Your task to perform on an android device: see tabs open on other devices in the chrome app Image 0: 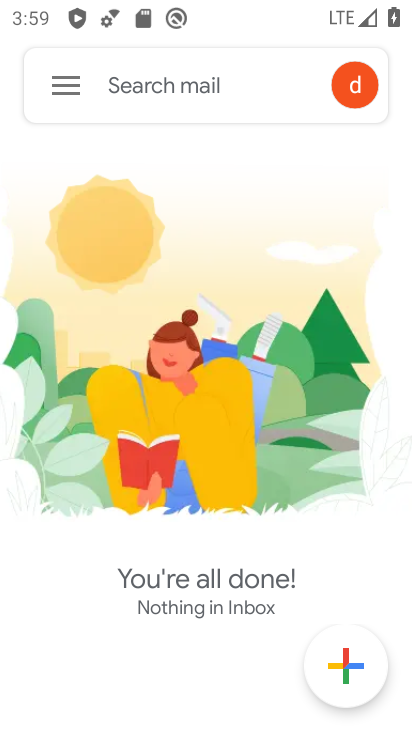
Step 0: press home button
Your task to perform on an android device: see tabs open on other devices in the chrome app Image 1: 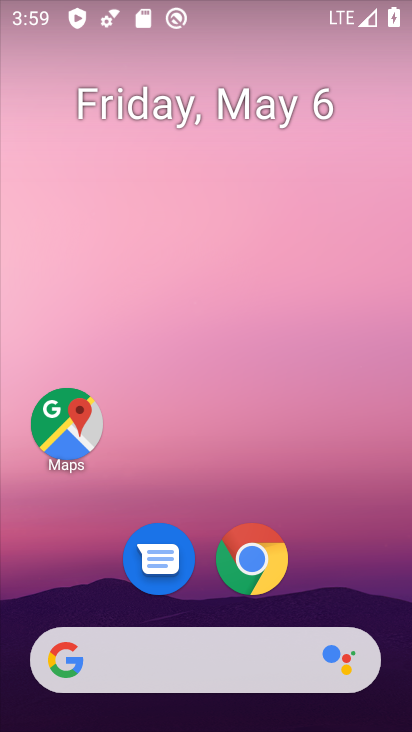
Step 1: click (237, 560)
Your task to perform on an android device: see tabs open on other devices in the chrome app Image 2: 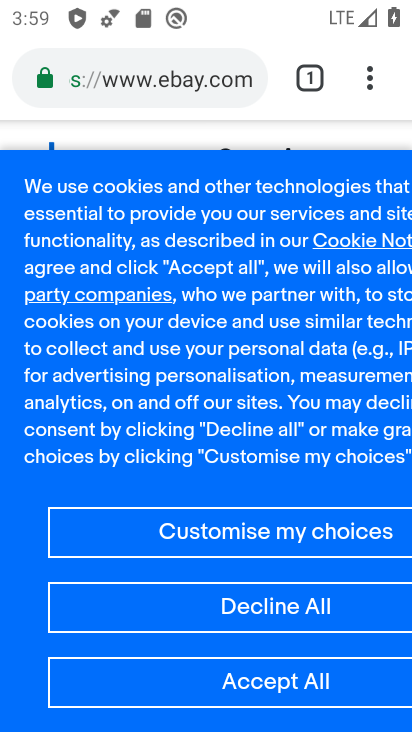
Step 2: click (307, 83)
Your task to perform on an android device: see tabs open on other devices in the chrome app Image 3: 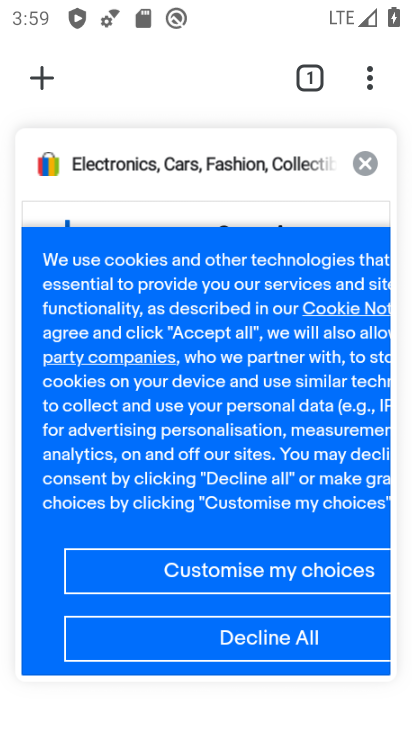
Step 3: task complete